Your task to perform on an android device: Is it going to rain today? Image 0: 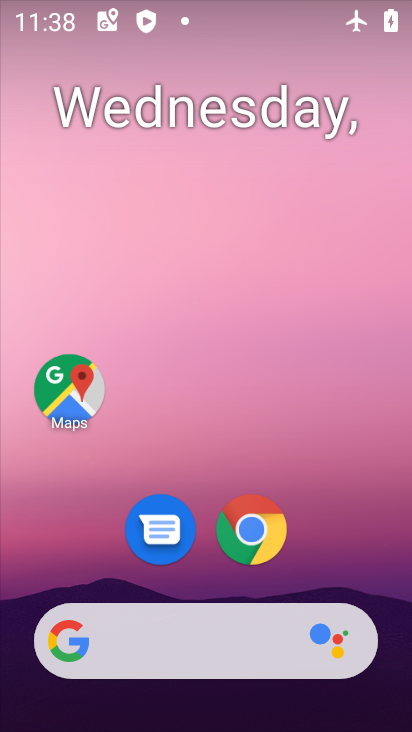
Step 0: drag from (222, 593) to (274, 43)
Your task to perform on an android device: Is it going to rain today? Image 1: 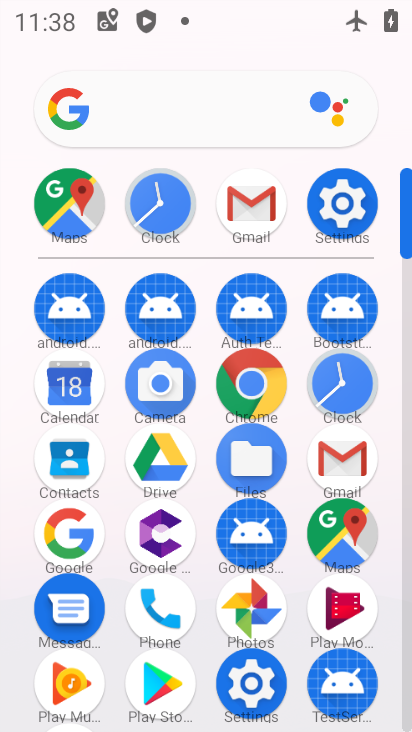
Step 1: click (81, 527)
Your task to perform on an android device: Is it going to rain today? Image 2: 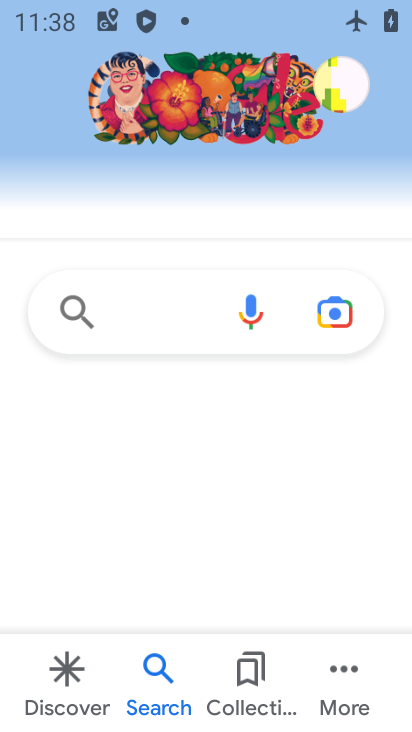
Step 2: click (195, 306)
Your task to perform on an android device: Is it going to rain today? Image 3: 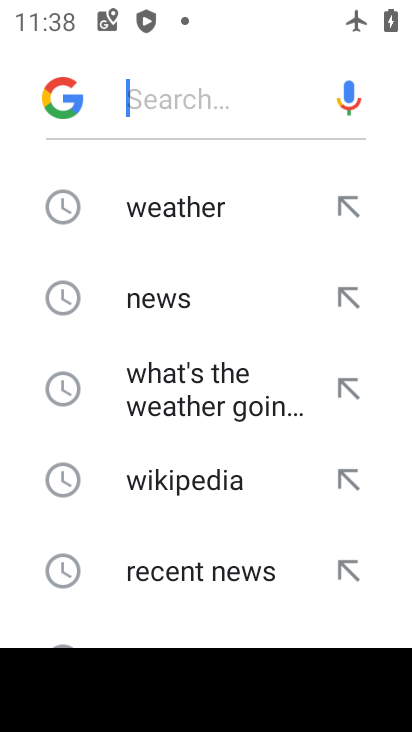
Step 3: click (192, 222)
Your task to perform on an android device: Is it going to rain today? Image 4: 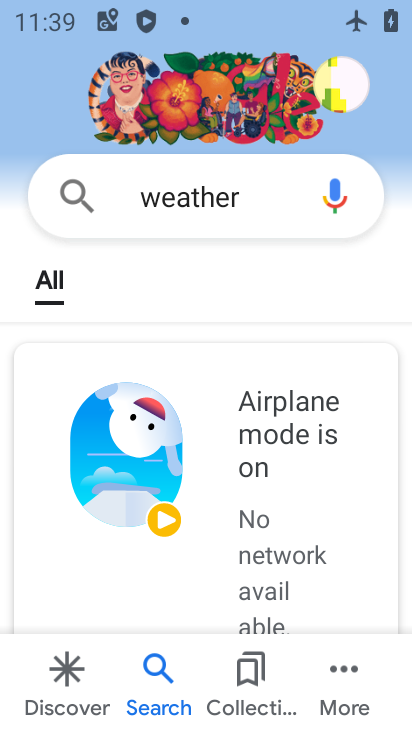
Step 4: task complete